Your task to perform on an android device: turn on location history Image 0: 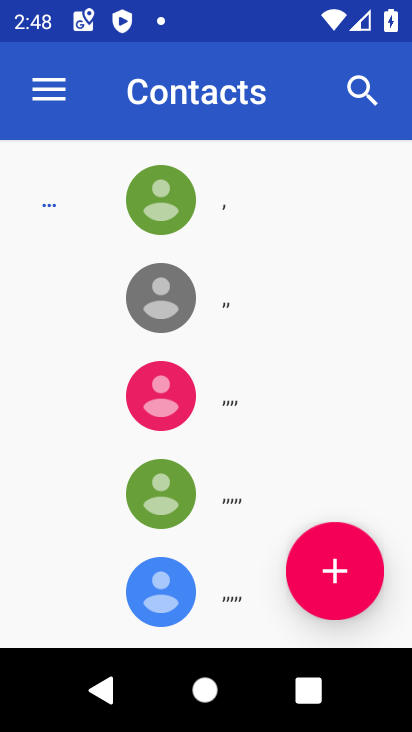
Step 0: press home button
Your task to perform on an android device: turn on location history Image 1: 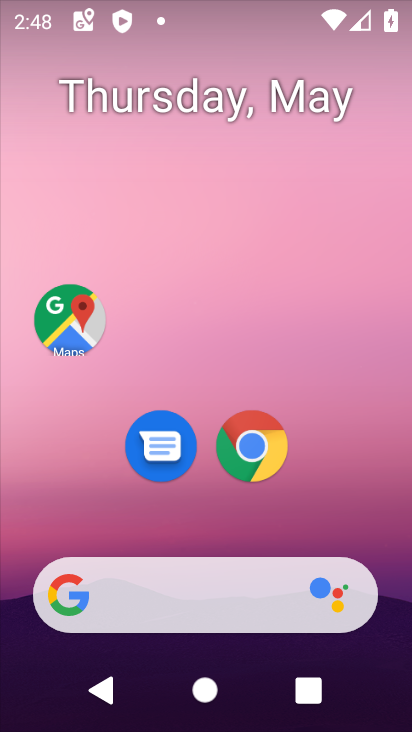
Step 1: drag from (308, 529) to (283, 65)
Your task to perform on an android device: turn on location history Image 2: 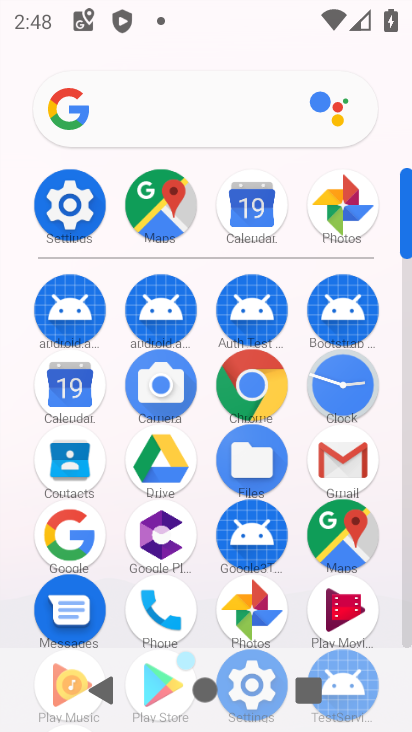
Step 2: click (58, 201)
Your task to perform on an android device: turn on location history Image 3: 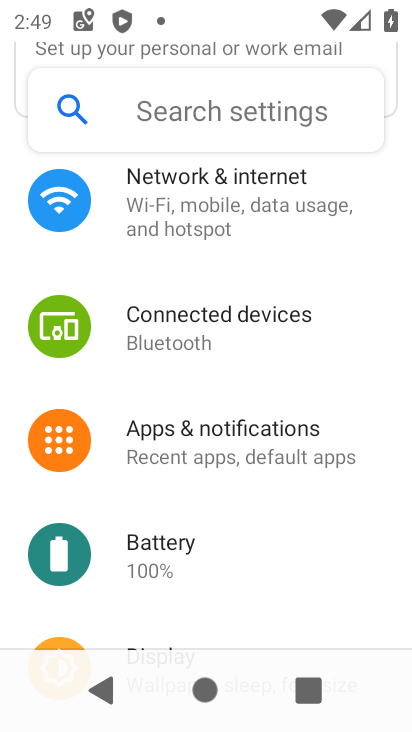
Step 3: drag from (184, 506) to (182, 304)
Your task to perform on an android device: turn on location history Image 4: 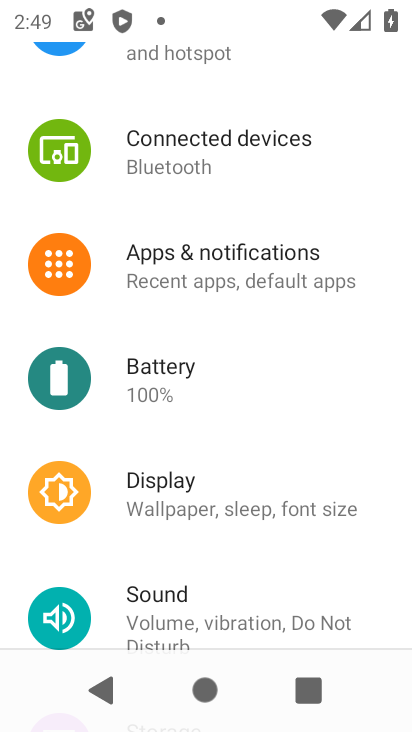
Step 4: drag from (217, 517) to (204, 313)
Your task to perform on an android device: turn on location history Image 5: 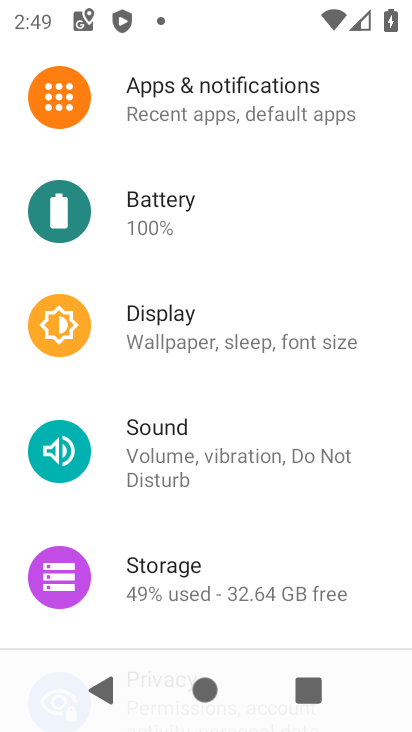
Step 5: drag from (216, 569) to (211, 371)
Your task to perform on an android device: turn on location history Image 6: 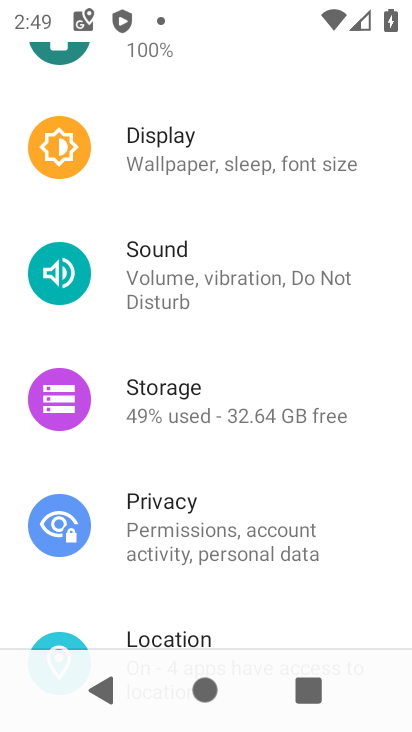
Step 6: drag from (242, 583) to (231, 284)
Your task to perform on an android device: turn on location history Image 7: 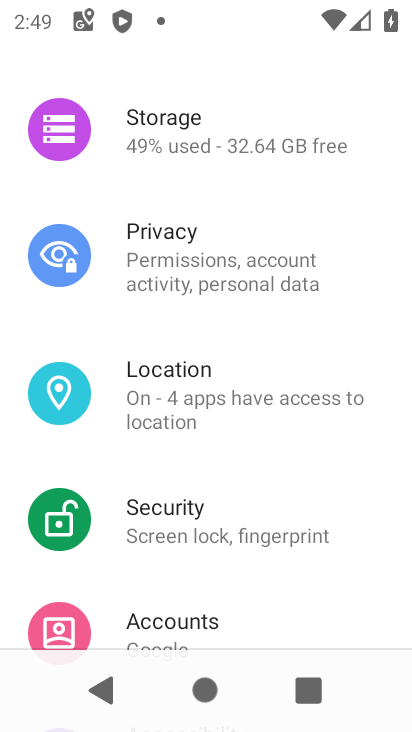
Step 7: click (215, 377)
Your task to perform on an android device: turn on location history Image 8: 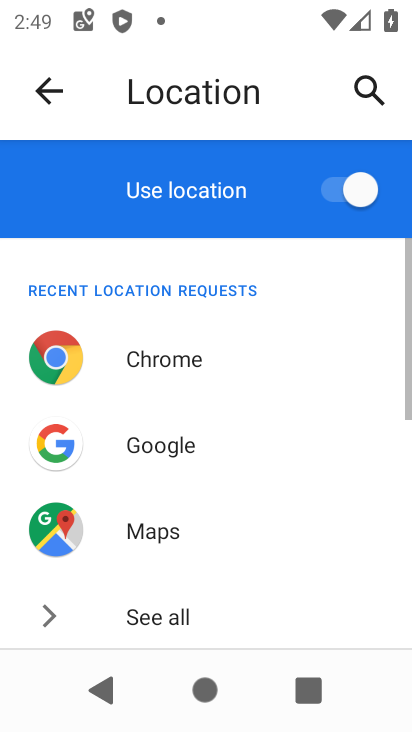
Step 8: drag from (231, 581) to (237, 161)
Your task to perform on an android device: turn on location history Image 9: 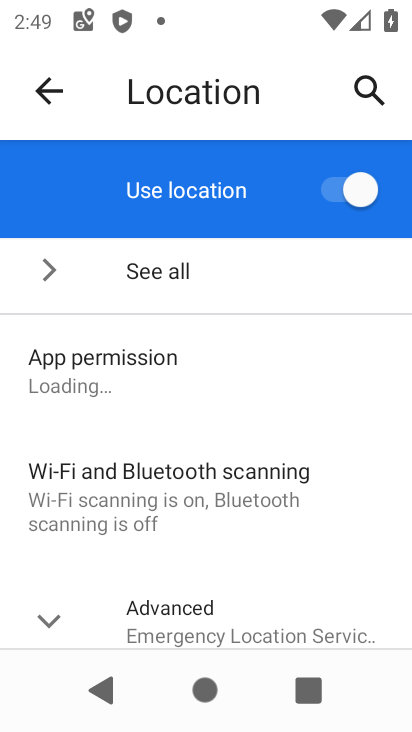
Step 9: drag from (275, 512) to (274, 229)
Your task to perform on an android device: turn on location history Image 10: 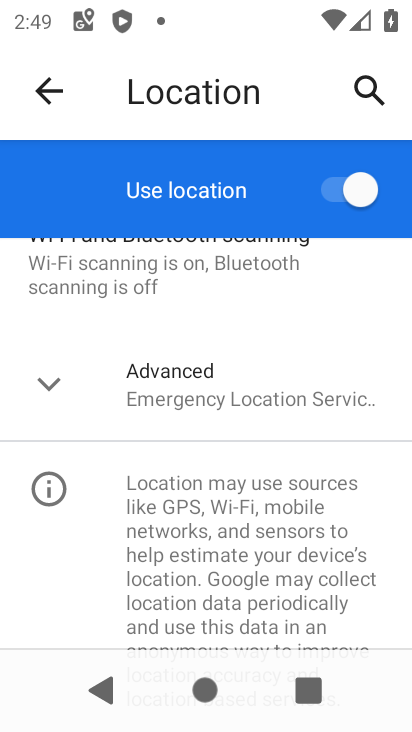
Step 10: click (258, 375)
Your task to perform on an android device: turn on location history Image 11: 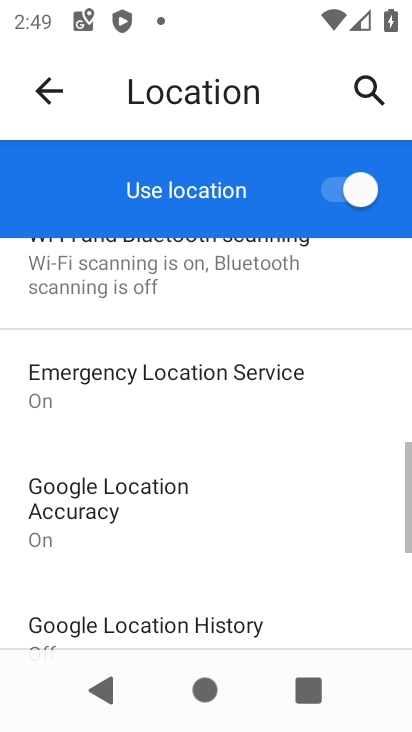
Step 11: drag from (234, 535) to (264, 235)
Your task to perform on an android device: turn on location history Image 12: 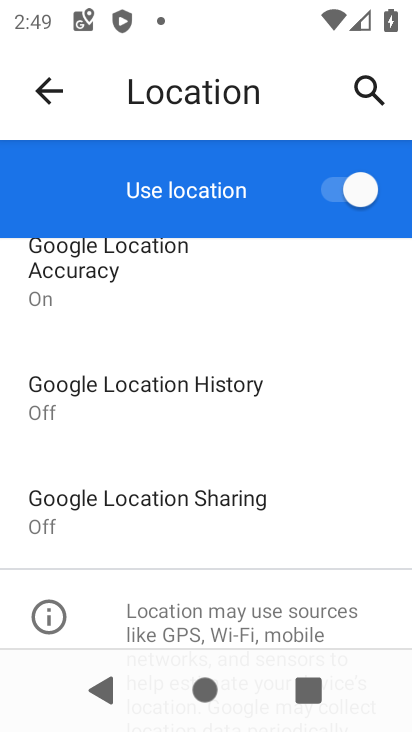
Step 12: click (159, 383)
Your task to perform on an android device: turn on location history Image 13: 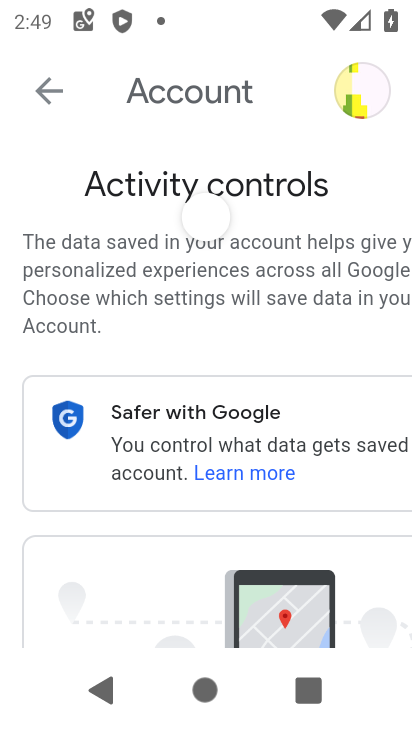
Step 13: task complete